Your task to perform on an android device: Go to settings Image 0: 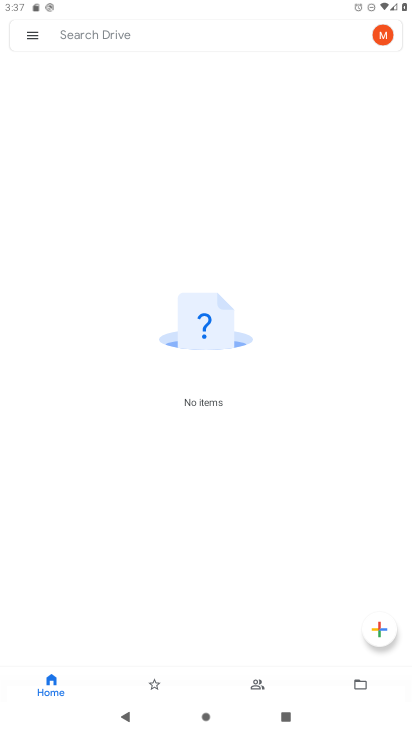
Step 0: press home button
Your task to perform on an android device: Go to settings Image 1: 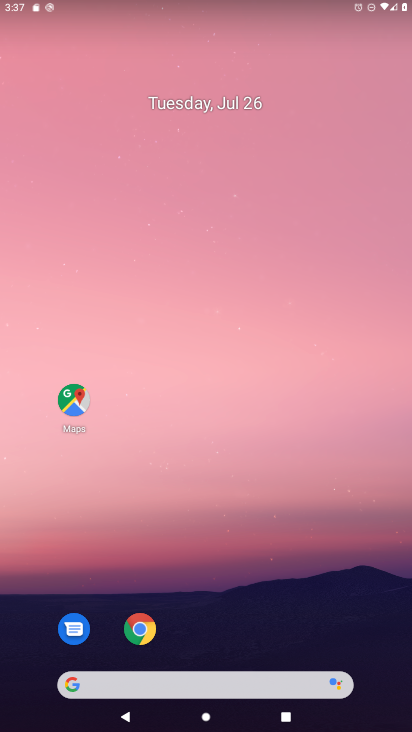
Step 1: drag from (230, 553) to (215, 247)
Your task to perform on an android device: Go to settings Image 2: 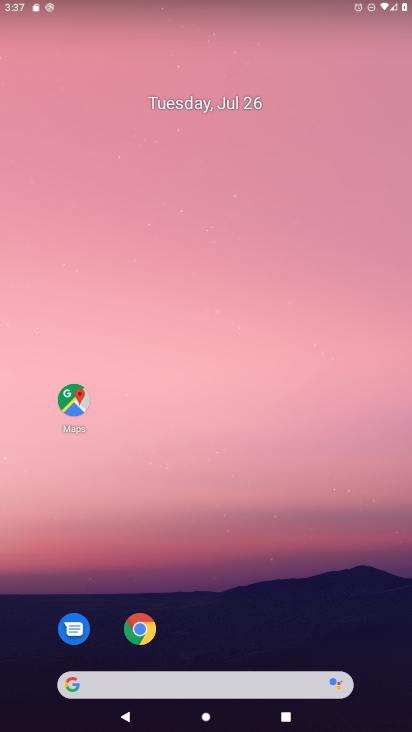
Step 2: drag from (226, 630) to (200, 204)
Your task to perform on an android device: Go to settings Image 3: 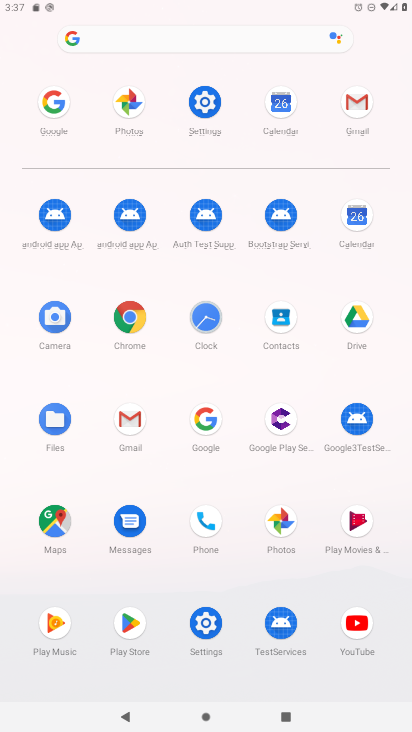
Step 3: click (203, 102)
Your task to perform on an android device: Go to settings Image 4: 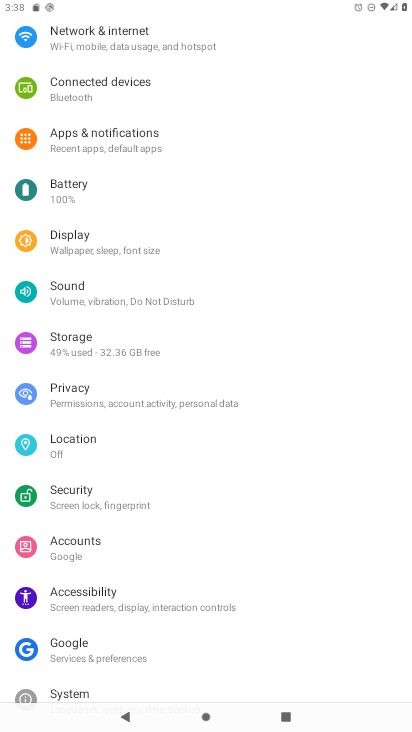
Step 4: task complete